Your task to perform on an android device: turn off location Image 0: 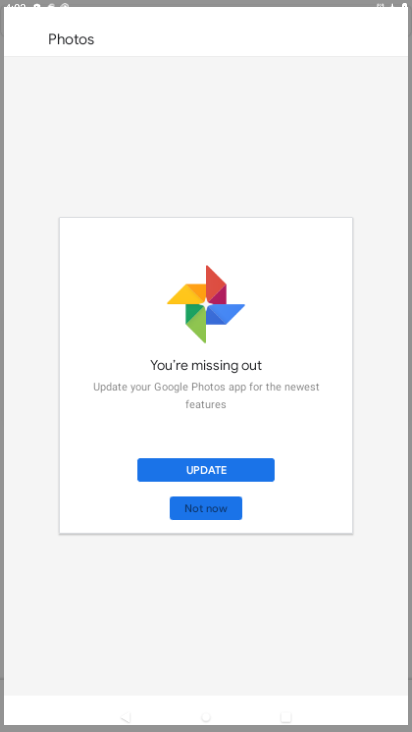
Step 0: press home button
Your task to perform on an android device: turn off location Image 1: 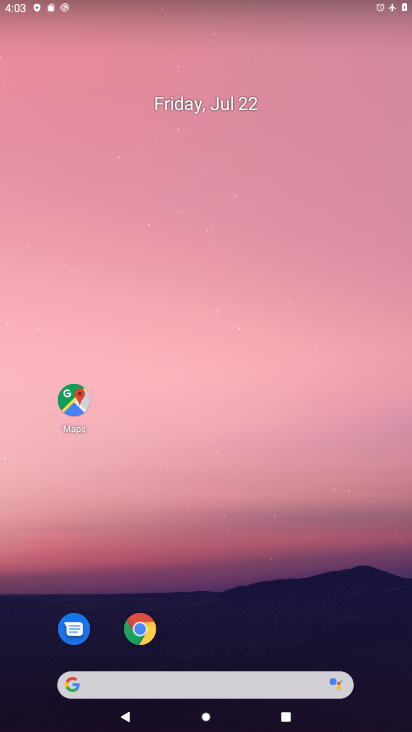
Step 1: drag from (258, 431) to (253, 37)
Your task to perform on an android device: turn off location Image 2: 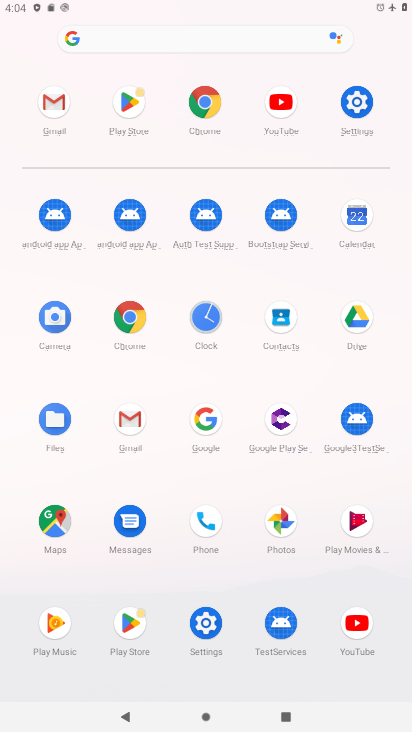
Step 2: click (353, 100)
Your task to perform on an android device: turn off location Image 3: 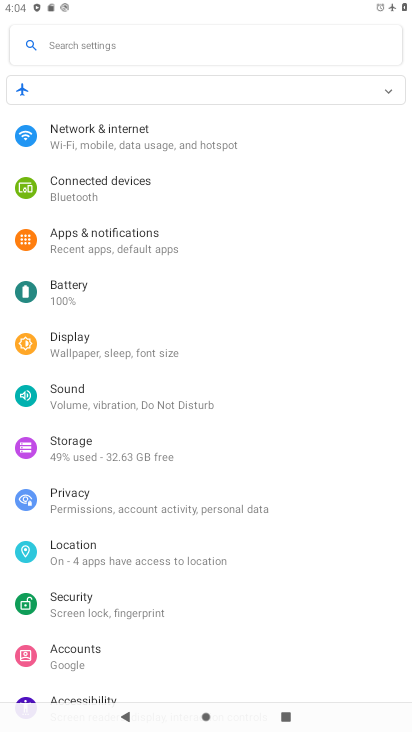
Step 3: click (115, 557)
Your task to perform on an android device: turn off location Image 4: 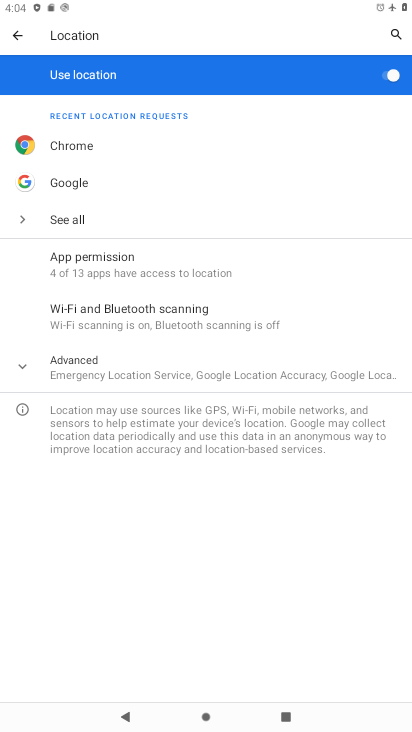
Step 4: click (379, 73)
Your task to perform on an android device: turn off location Image 5: 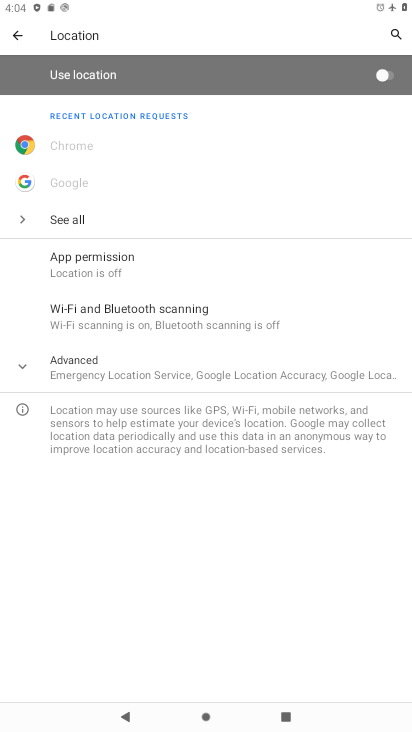
Step 5: task complete